Your task to perform on an android device: Open sound settings Image 0: 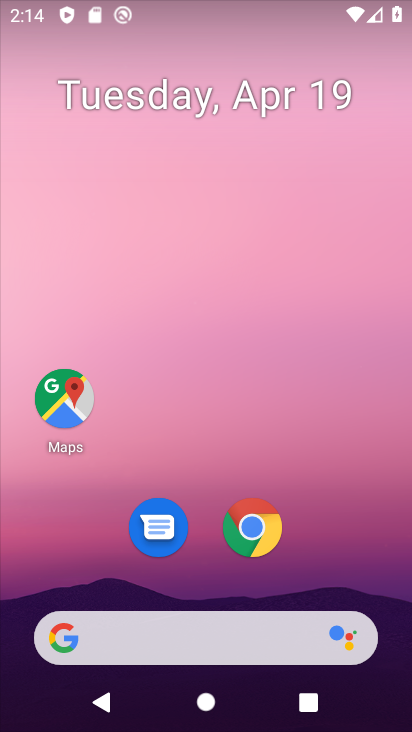
Step 0: drag from (213, 608) to (221, 302)
Your task to perform on an android device: Open sound settings Image 1: 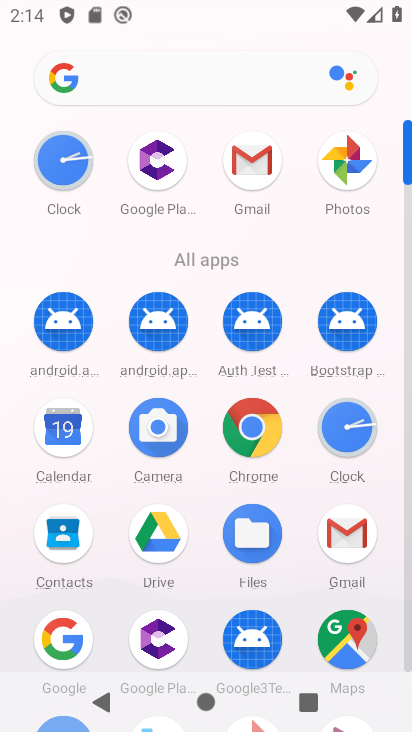
Step 1: drag from (199, 625) to (230, 313)
Your task to perform on an android device: Open sound settings Image 2: 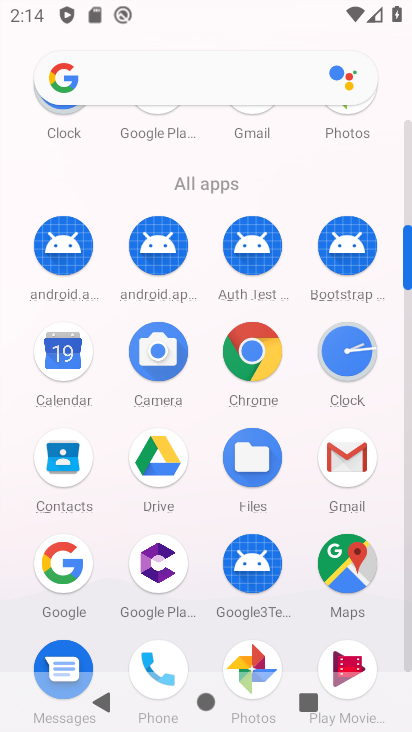
Step 2: drag from (212, 646) to (230, 364)
Your task to perform on an android device: Open sound settings Image 3: 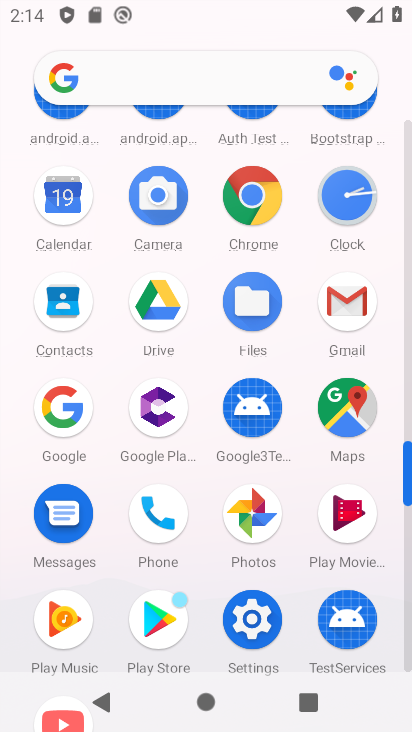
Step 3: click (253, 615)
Your task to perform on an android device: Open sound settings Image 4: 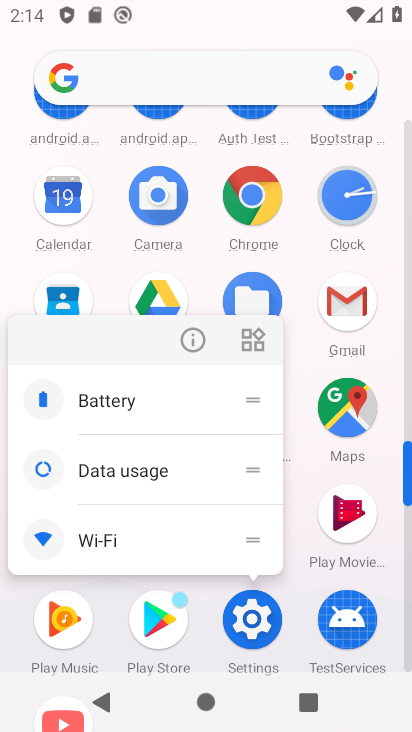
Step 4: click (253, 615)
Your task to perform on an android device: Open sound settings Image 5: 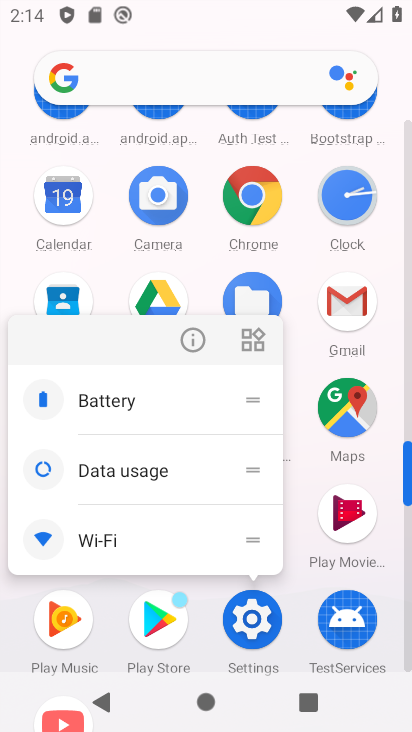
Step 5: click (253, 617)
Your task to perform on an android device: Open sound settings Image 6: 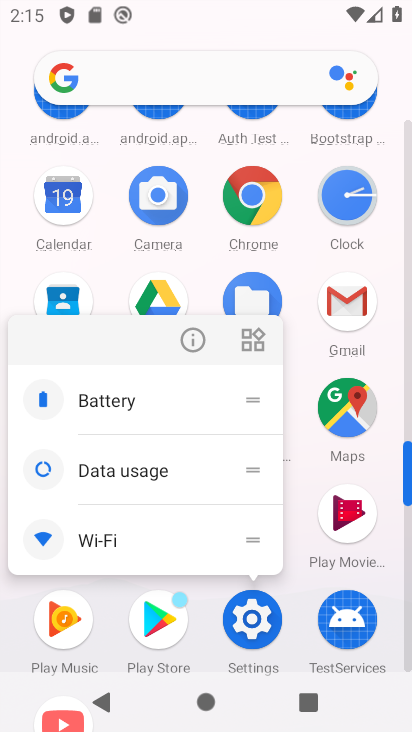
Step 6: click (246, 630)
Your task to perform on an android device: Open sound settings Image 7: 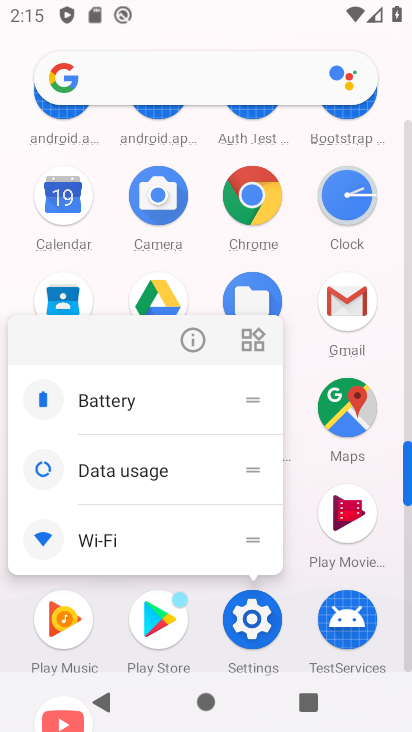
Step 7: click (246, 630)
Your task to perform on an android device: Open sound settings Image 8: 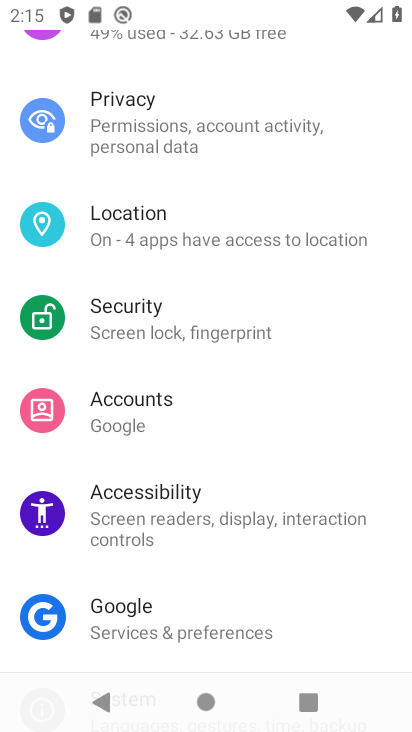
Step 8: drag from (271, 94) to (313, 584)
Your task to perform on an android device: Open sound settings Image 9: 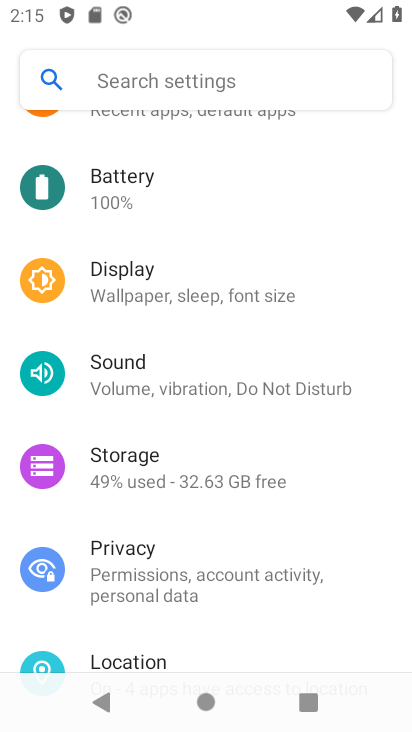
Step 9: drag from (251, 196) to (282, 414)
Your task to perform on an android device: Open sound settings Image 10: 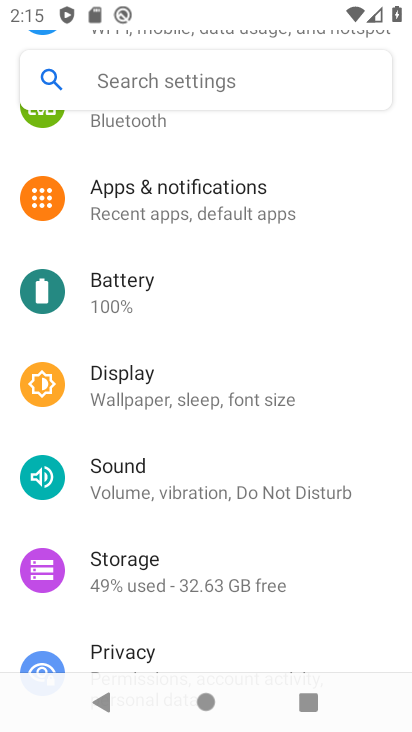
Step 10: click (171, 487)
Your task to perform on an android device: Open sound settings Image 11: 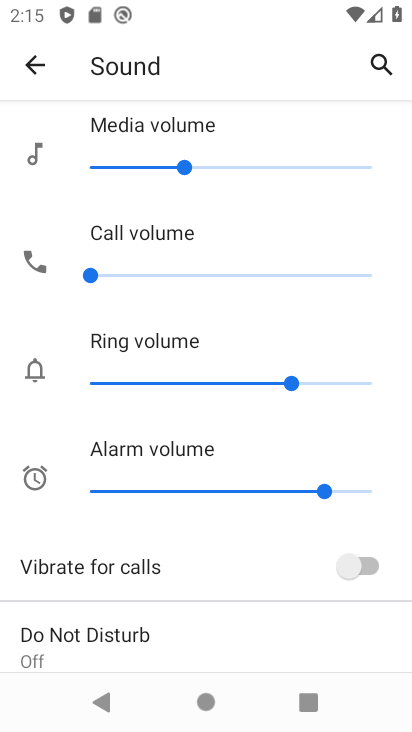
Step 11: drag from (215, 611) to (194, 332)
Your task to perform on an android device: Open sound settings Image 12: 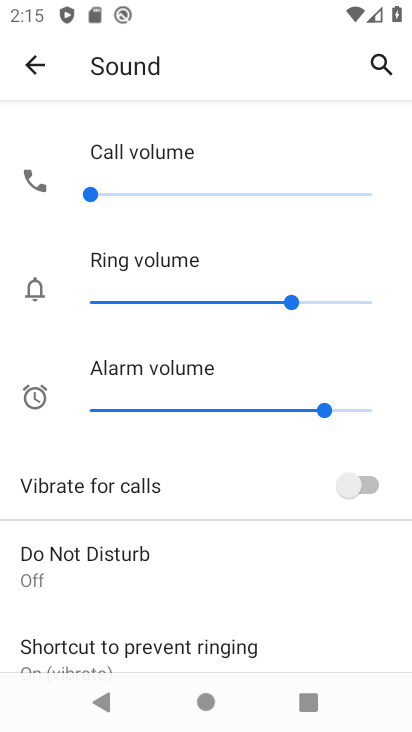
Step 12: drag from (228, 626) to (212, 330)
Your task to perform on an android device: Open sound settings Image 13: 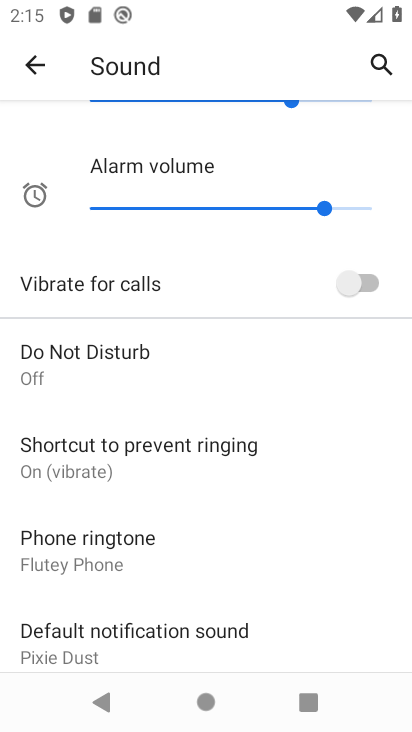
Step 13: drag from (213, 630) to (213, 416)
Your task to perform on an android device: Open sound settings Image 14: 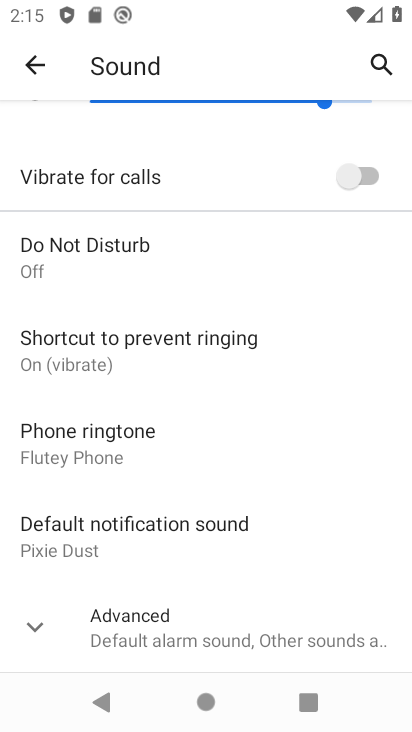
Step 14: click (206, 631)
Your task to perform on an android device: Open sound settings Image 15: 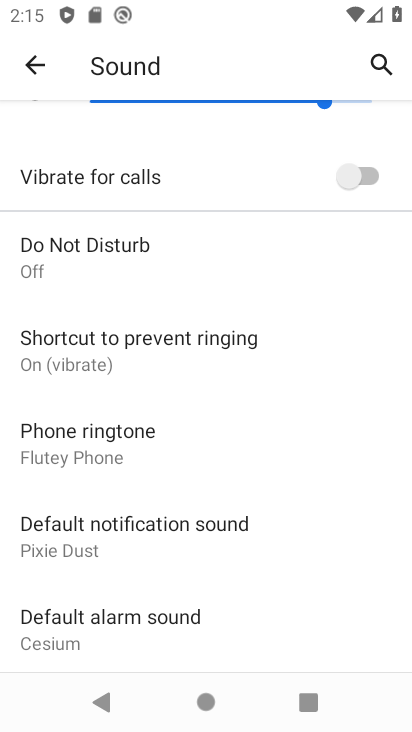
Step 15: task complete